Your task to perform on an android device: What is the news today? Image 0: 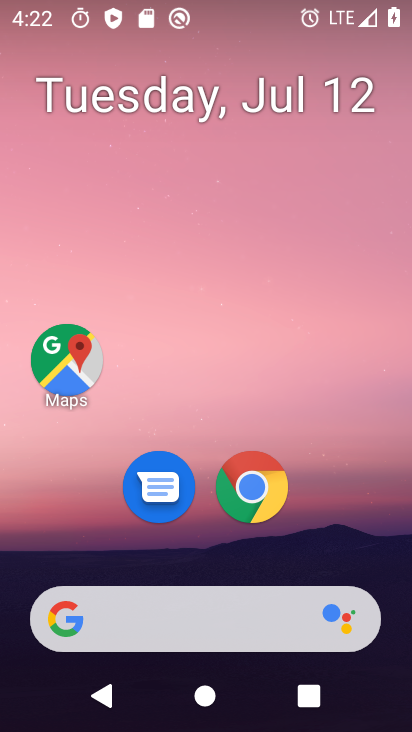
Step 0: drag from (293, 510) to (319, 84)
Your task to perform on an android device: What is the news today? Image 1: 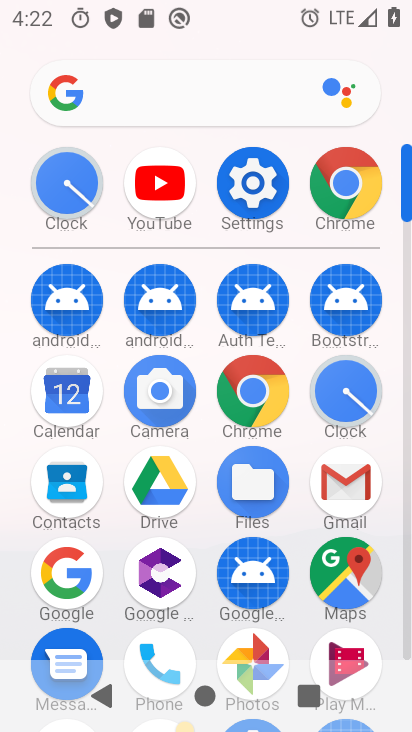
Step 1: drag from (182, 495) to (213, 247)
Your task to perform on an android device: What is the news today? Image 2: 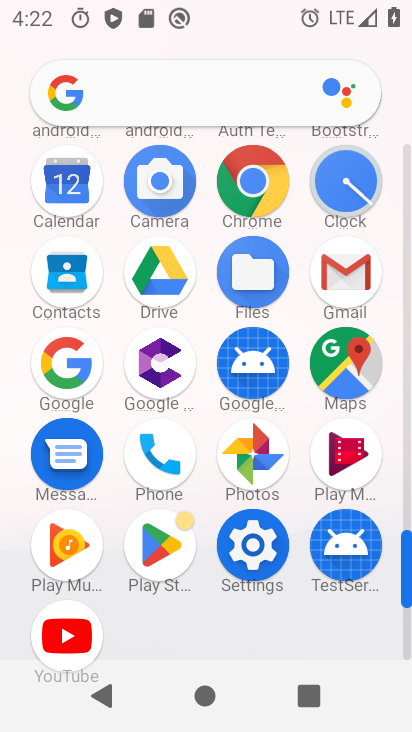
Step 2: click (72, 381)
Your task to perform on an android device: What is the news today? Image 3: 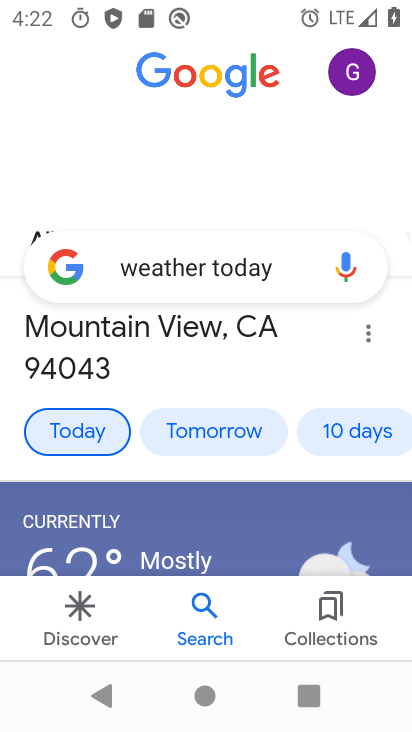
Step 3: task complete